Your task to perform on an android device: Open calendar and show me the first week of next month Image 0: 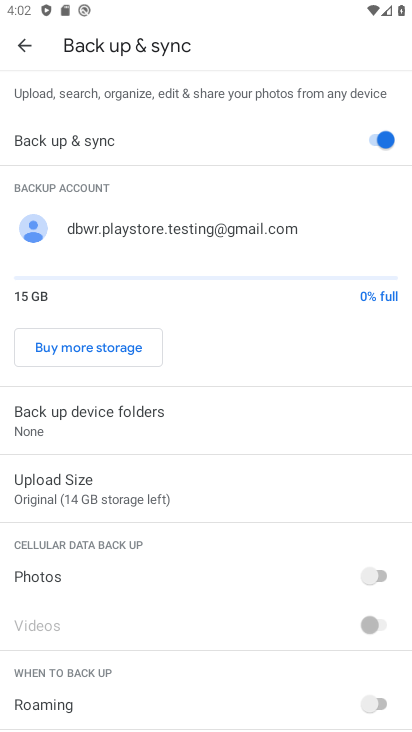
Step 0: press home button
Your task to perform on an android device: Open calendar and show me the first week of next month Image 1: 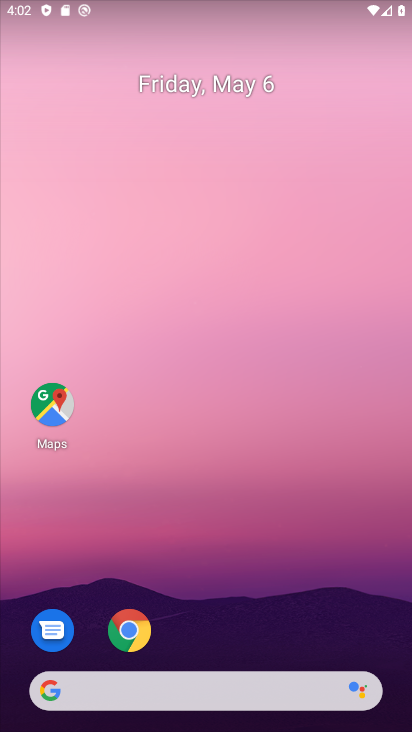
Step 1: drag from (223, 679) to (167, 133)
Your task to perform on an android device: Open calendar and show me the first week of next month Image 2: 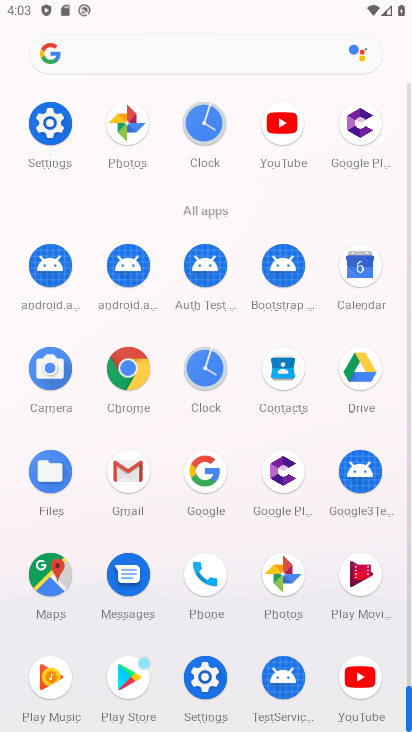
Step 2: click (369, 294)
Your task to perform on an android device: Open calendar and show me the first week of next month Image 3: 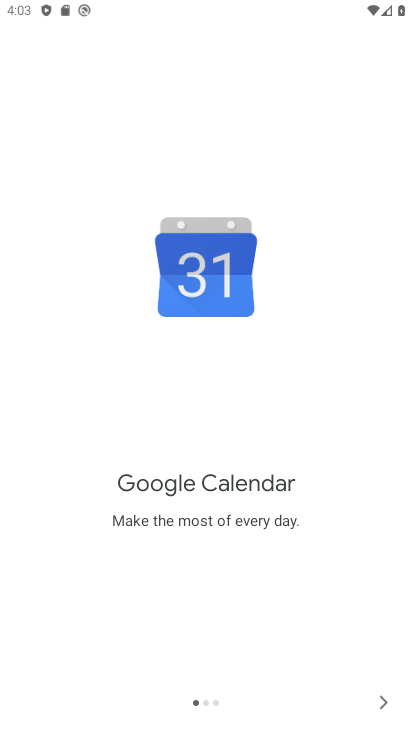
Step 3: click (381, 700)
Your task to perform on an android device: Open calendar and show me the first week of next month Image 4: 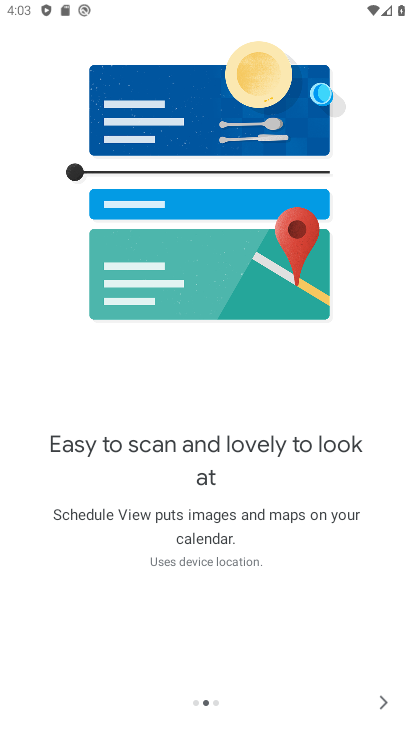
Step 4: click (380, 696)
Your task to perform on an android device: Open calendar and show me the first week of next month Image 5: 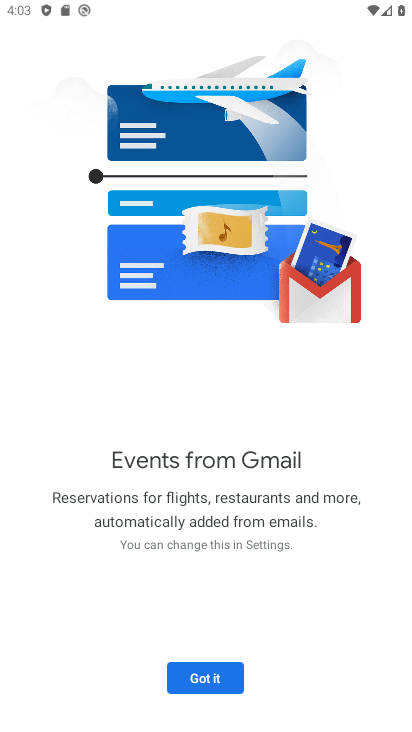
Step 5: click (238, 686)
Your task to perform on an android device: Open calendar and show me the first week of next month Image 6: 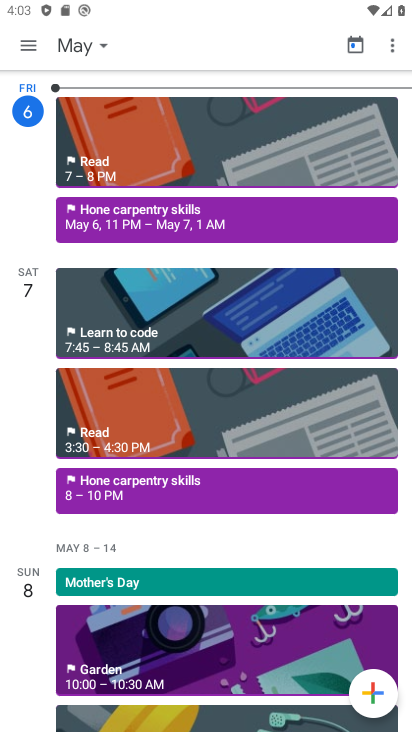
Step 6: click (93, 37)
Your task to perform on an android device: Open calendar and show me the first week of next month Image 7: 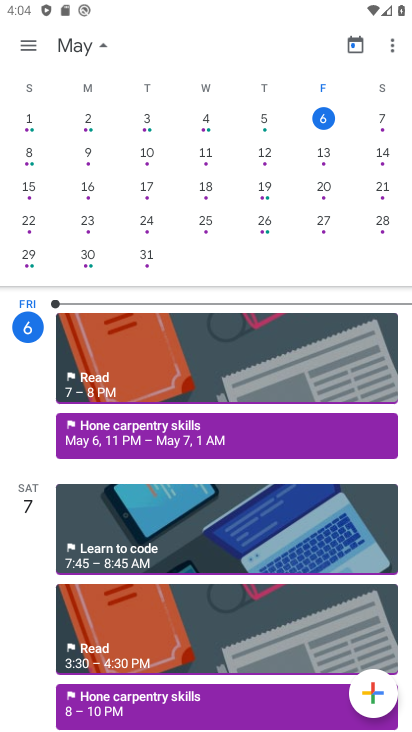
Step 7: task complete